Your task to perform on an android device: Go to ESPN.com Image 0: 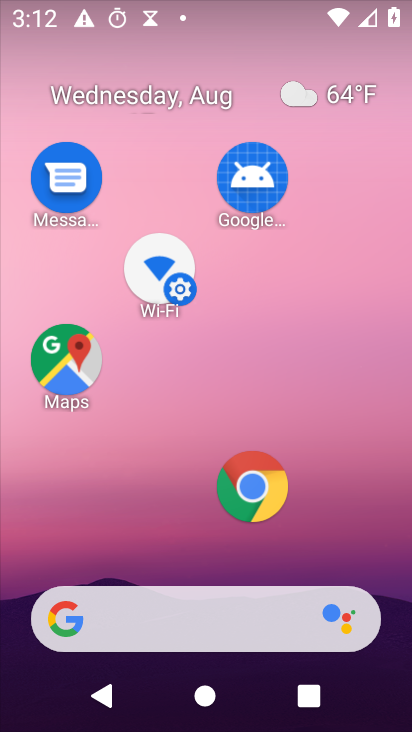
Step 0: press home button
Your task to perform on an android device: Go to ESPN.com Image 1: 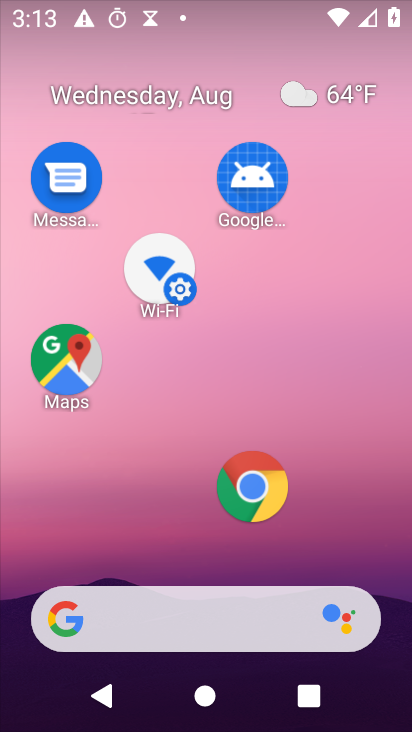
Step 1: click (49, 615)
Your task to perform on an android device: Go to ESPN.com Image 2: 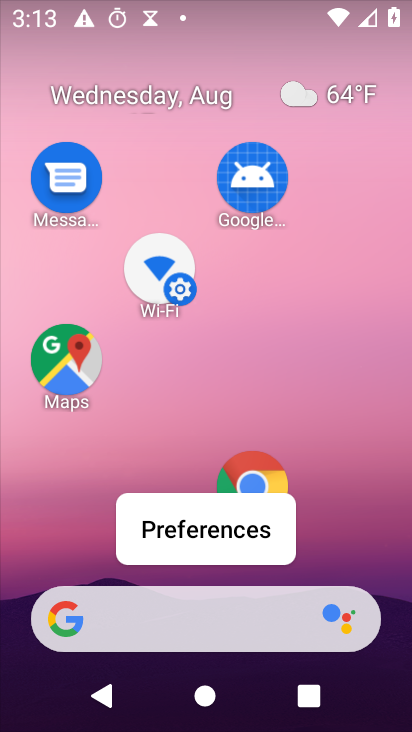
Step 2: click (62, 630)
Your task to perform on an android device: Go to ESPN.com Image 3: 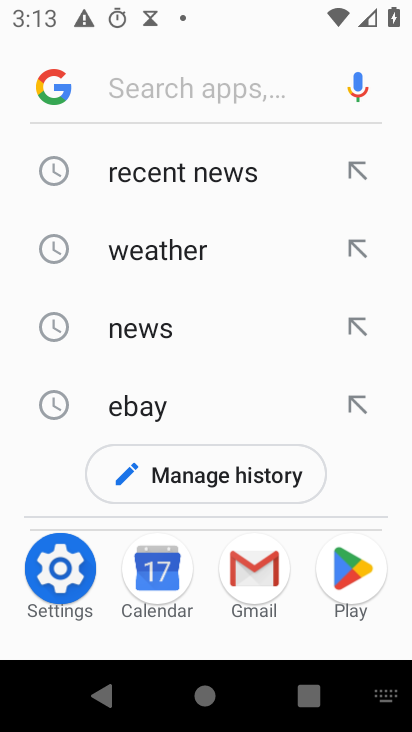
Step 3: type "ESPN.com"
Your task to perform on an android device: Go to ESPN.com Image 4: 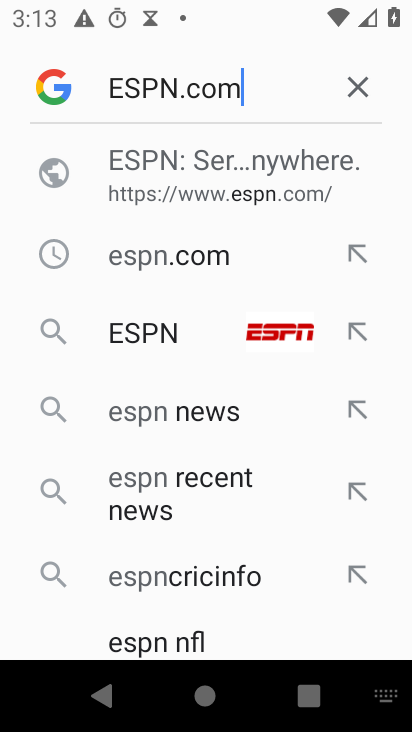
Step 4: press enter
Your task to perform on an android device: Go to ESPN.com Image 5: 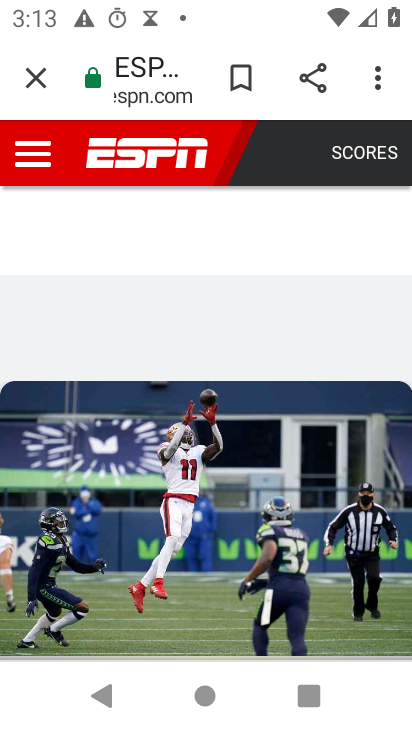
Step 5: task complete